Your task to perform on an android device: Open network settings Image 0: 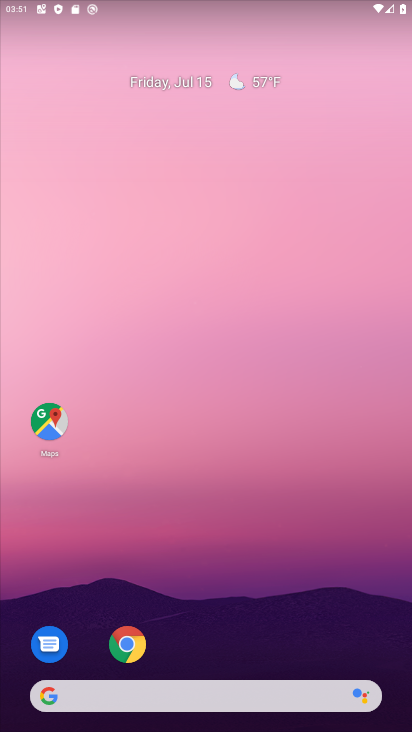
Step 0: drag from (299, 617) to (210, 113)
Your task to perform on an android device: Open network settings Image 1: 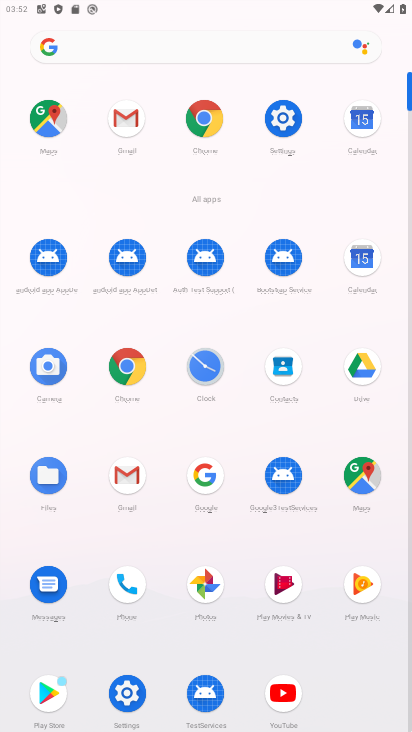
Step 1: click (290, 121)
Your task to perform on an android device: Open network settings Image 2: 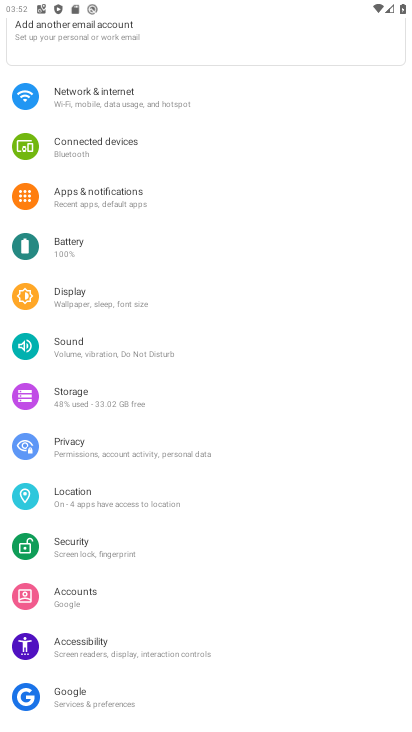
Step 2: click (209, 105)
Your task to perform on an android device: Open network settings Image 3: 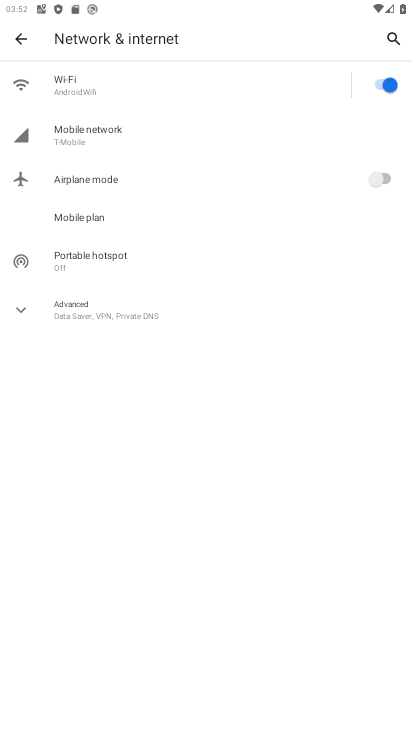
Step 3: task complete